Your task to perform on an android device: read, delete, or share a saved page in the chrome app Image 0: 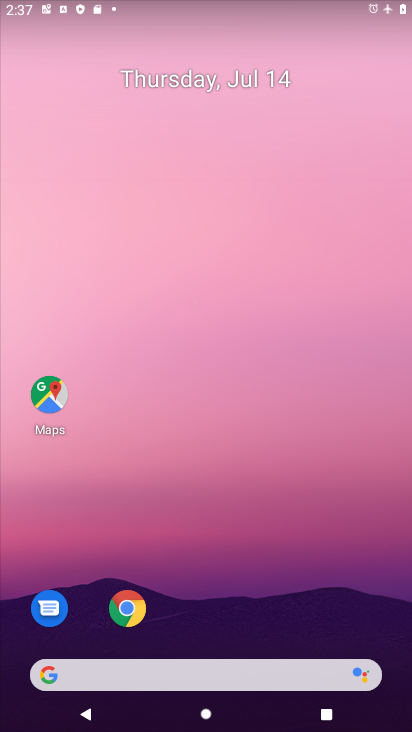
Step 0: click (124, 610)
Your task to perform on an android device: read, delete, or share a saved page in the chrome app Image 1: 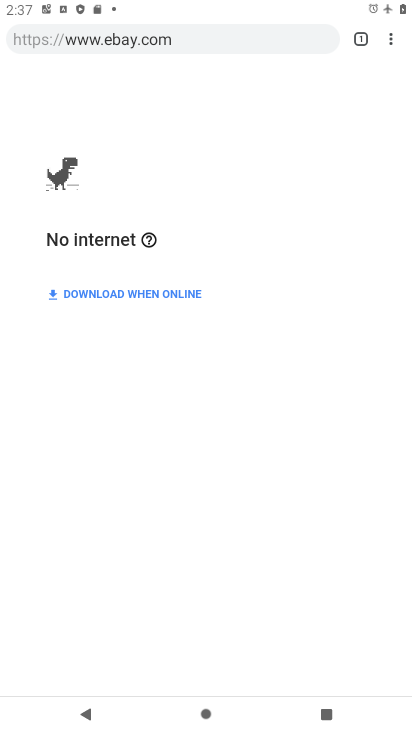
Step 1: click (389, 40)
Your task to perform on an android device: read, delete, or share a saved page in the chrome app Image 2: 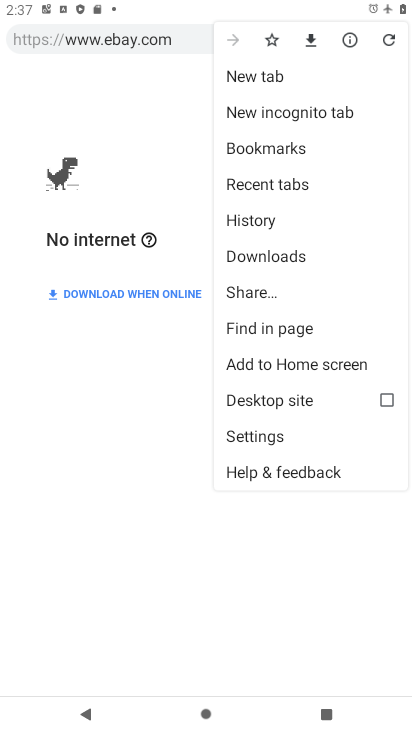
Step 2: click (266, 251)
Your task to perform on an android device: read, delete, or share a saved page in the chrome app Image 3: 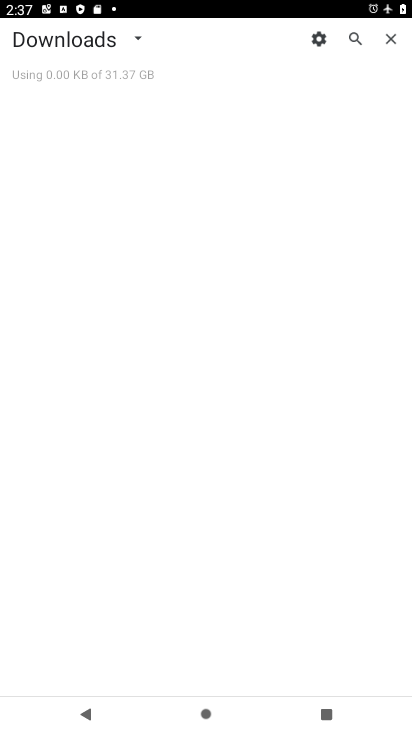
Step 3: click (131, 38)
Your task to perform on an android device: read, delete, or share a saved page in the chrome app Image 4: 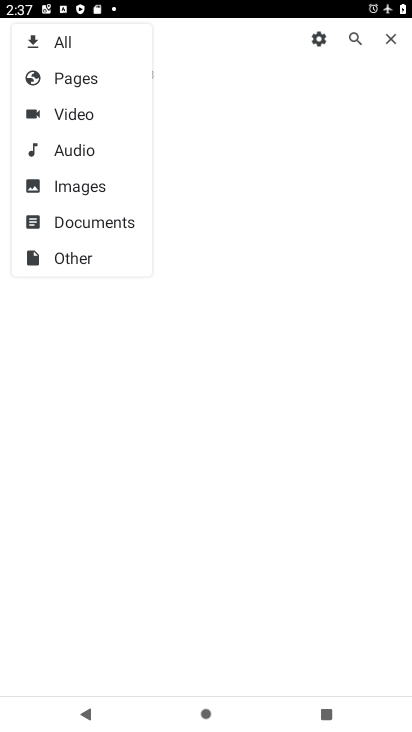
Step 4: click (73, 79)
Your task to perform on an android device: read, delete, or share a saved page in the chrome app Image 5: 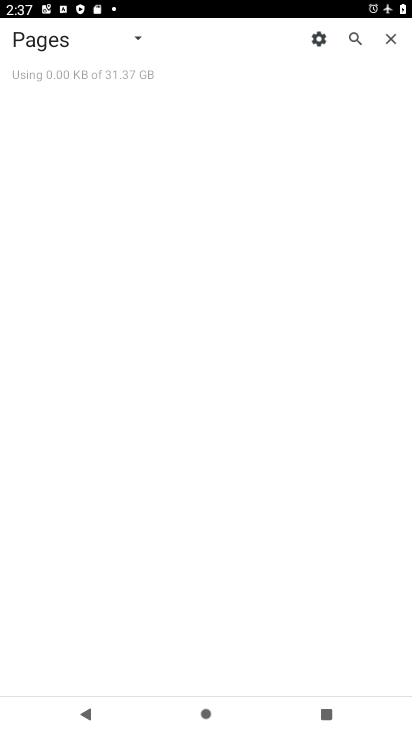
Step 5: task complete